Your task to perform on an android device: Go to Maps Image 0: 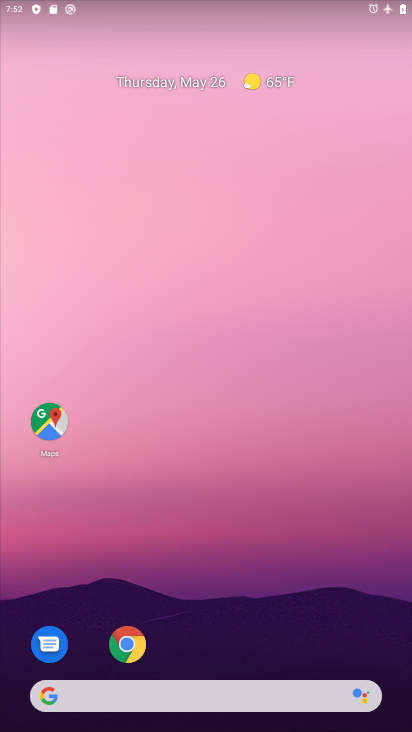
Step 0: drag from (196, 655) to (294, 195)
Your task to perform on an android device: Go to Maps Image 1: 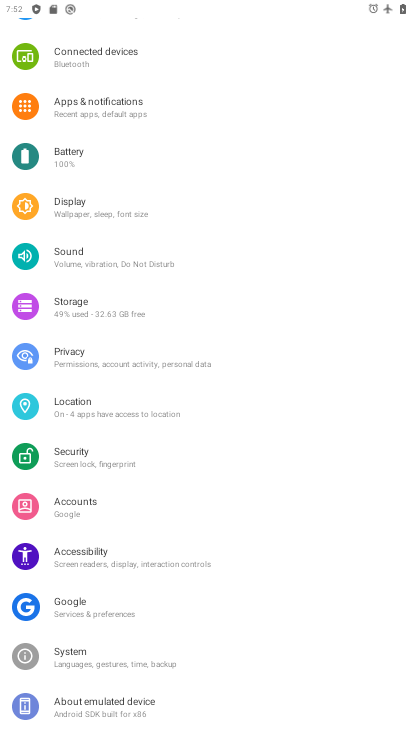
Step 1: drag from (112, 188) to (150, 635)
Your task to perform on an android device: Go to Maps Image 2: 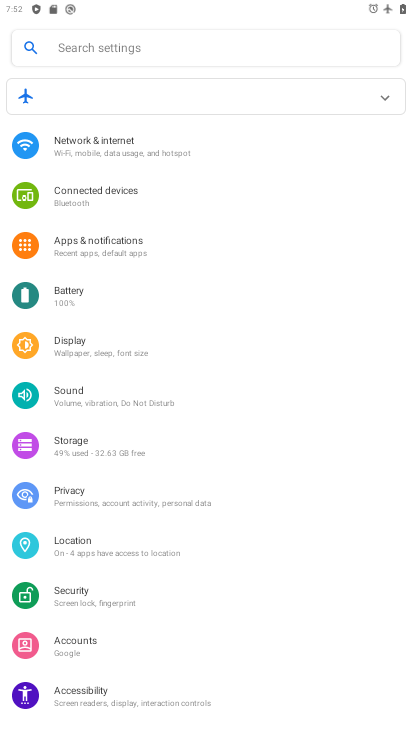
Step 2: press home button
Your task to perform on an android device: Go to Maps Image 3: 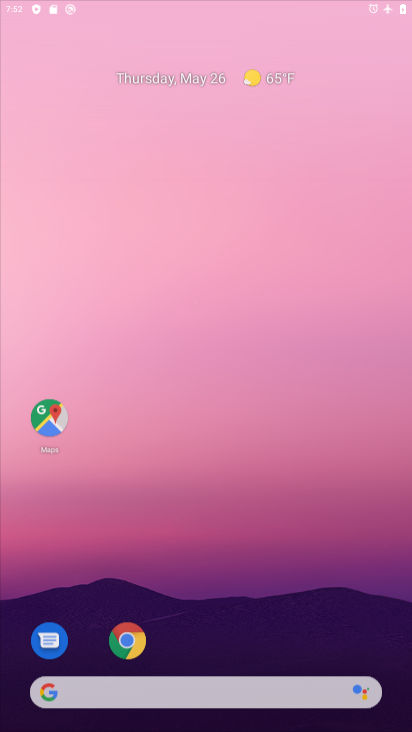
Step 3: drag from (210, 608) to (230, 196)
Your task to perform on an android device: Go to Maps Image 4: 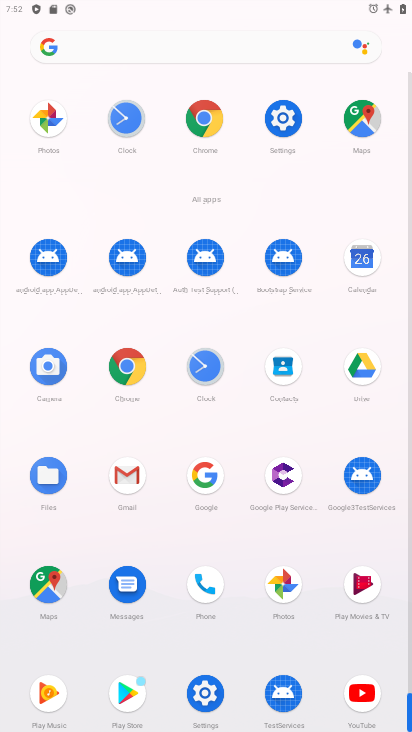
Step 4: click (47, 594)
Your task to perform on an android device: Go to Maps Image 5: 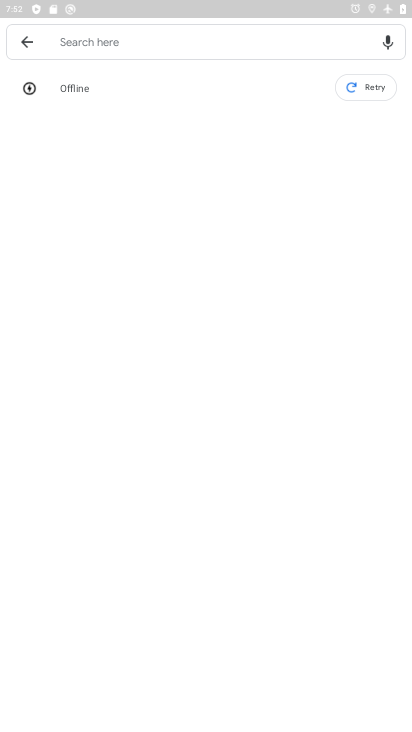
Step 5: click (18, 49)
Your task to perform on an android device: Go to Maps Image 6: 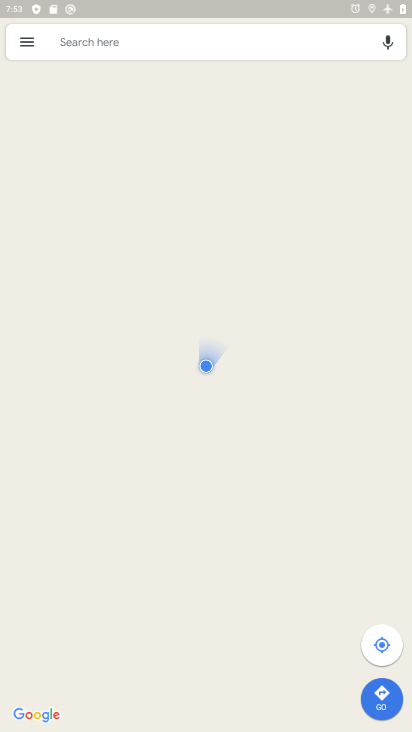
Step 6: task complete